Your task to perform on an android device: turn on improve location accuracy Image 0: 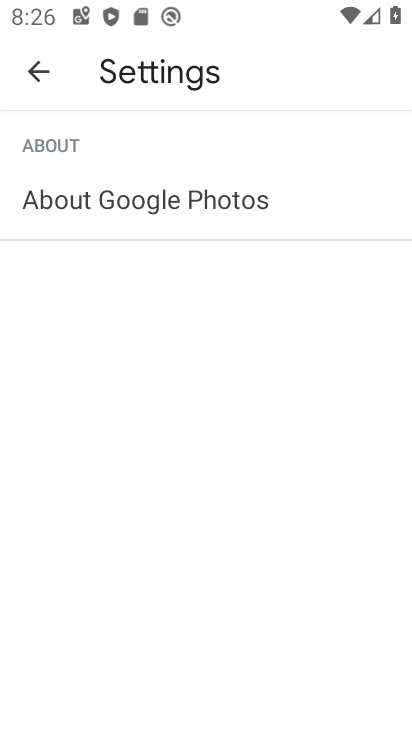
Step 0: press home button
Your task to perform on an android device: turn on improve location accuracy Image 1: 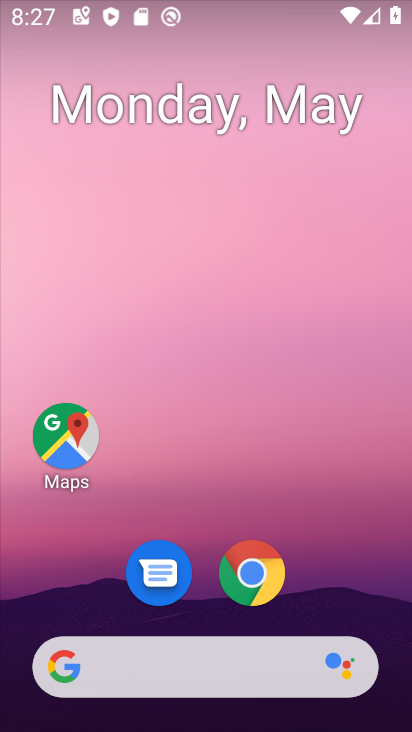
Step 1: drag from (372, 573) to (320, 66)
Your task to perform on an android device: turn on improve location accuracy Image 2: 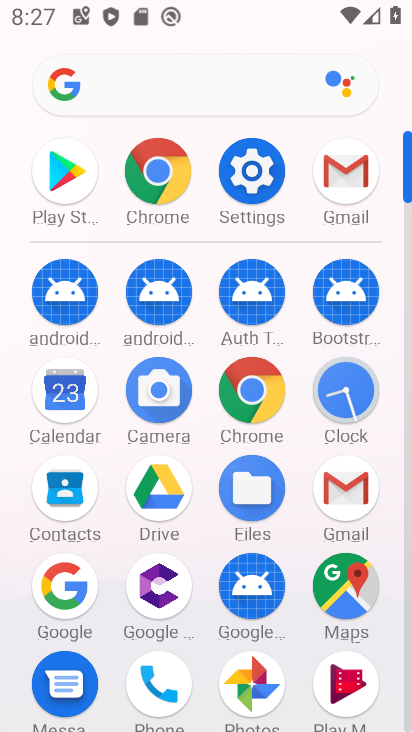
Step 2: click (255, 194)
Your task to perform on an android device: turn on improve location accuracy Image 3: 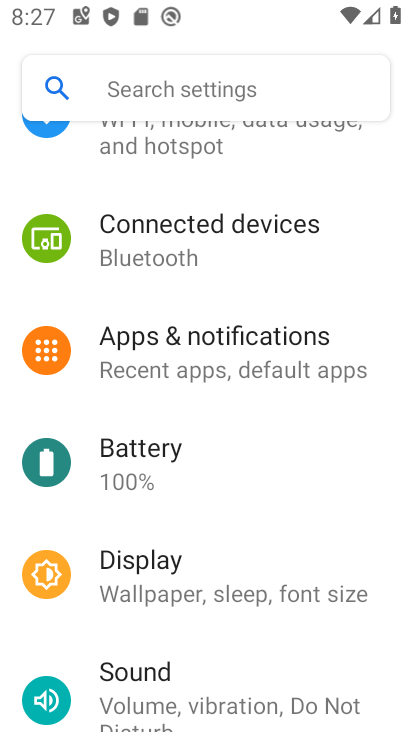
Step 3: drag from (227, 279) to (192, 722)
Your task to perform on an android device: turn on improve location accuracy Image 4: 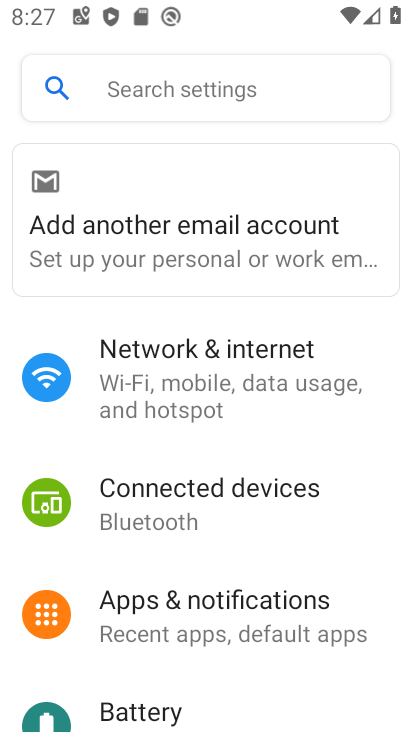
Step 4: drag from (223, 627) to (283, 3)
Your task to perform on an android device: turn on improve location accuracy Image 5: 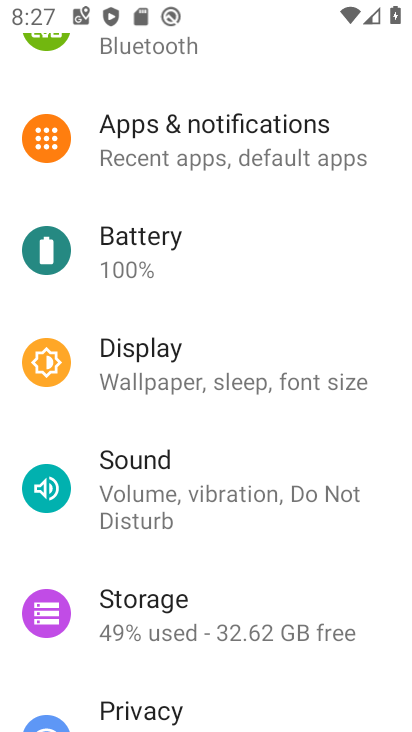
Step 5: drag from (280, 570) to (317, 120)
Your task to perform on an android device: turn on improve location accuracy Image 6: 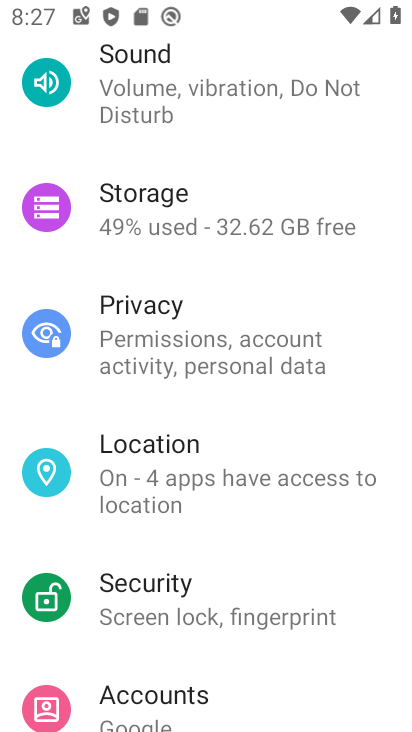
Step 6: click (283, 449)
Your task to perform on an android device: turn on improve location accuracy Image 7: 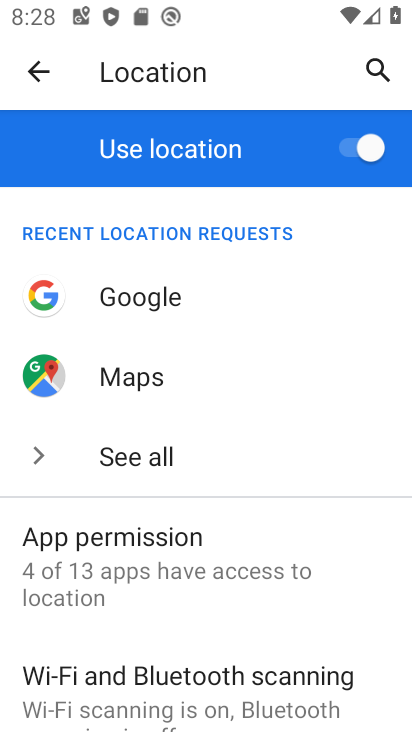
Step 7: drag from (229, 624) to (250, 330)
Your task to perform on an android device: turn on improve location accuracy Image 8: 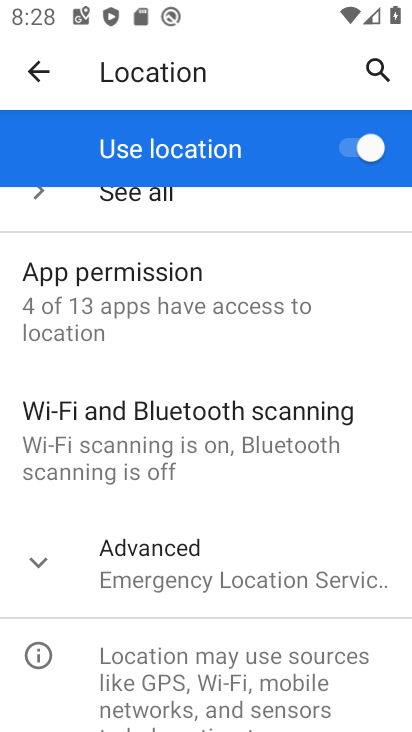
Step 8: click (169, 593)
Your task to perform on an android device: turn on improve location accuracy Image 9: 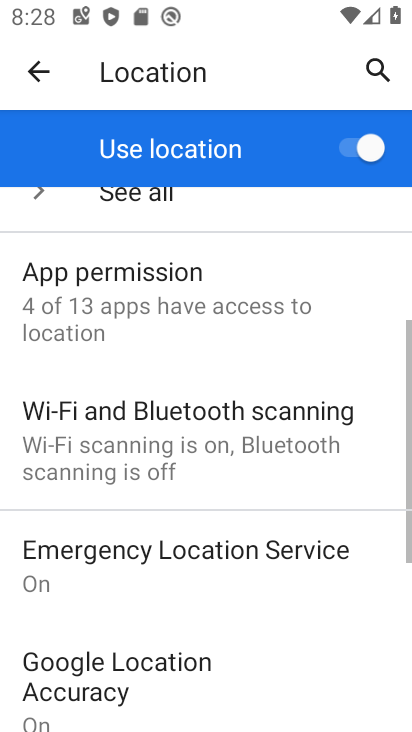
Step 9: drag from (245, 612) to (299, 297)
Your task to perform on an android device: turn on improve location accuracy Image 10: 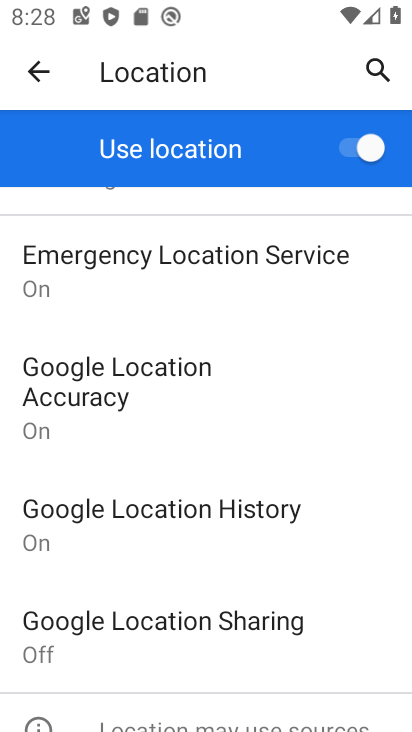
Step 10: click (246, 370)
Your task to perform on an android device: turn on improve location accuracy Image 11: 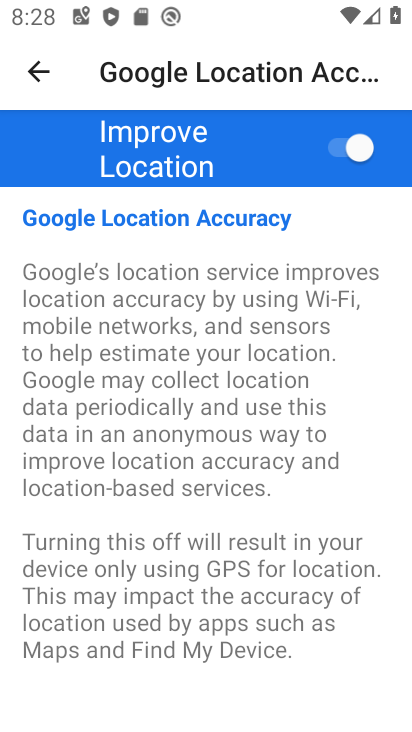
Step 11: task complete